Your task to perform on an android device: Open notification settings Image 0: 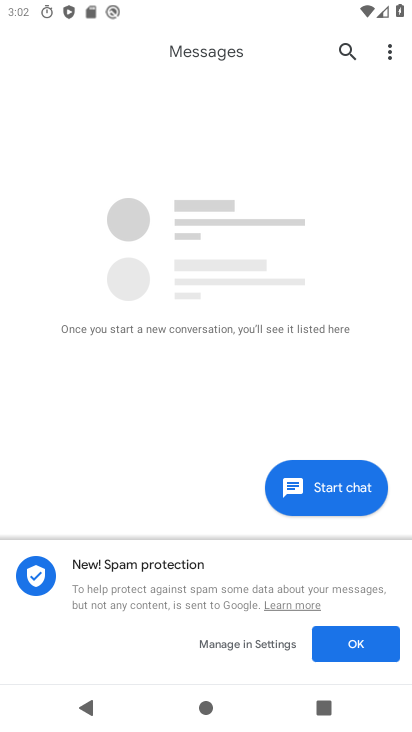
Step 0: press home button
Your task to perform on an android device: Open notification settings Image 1: 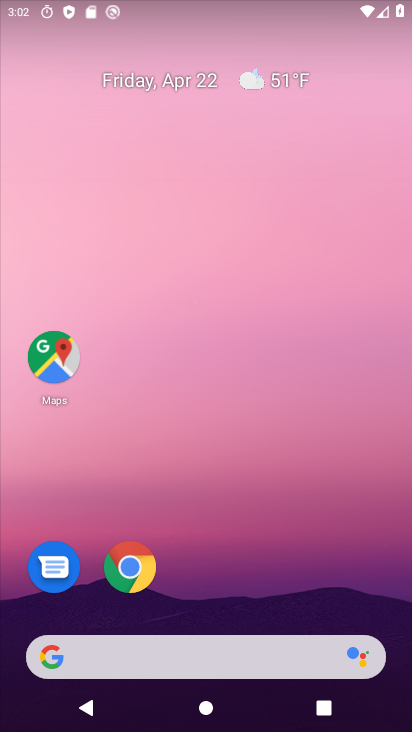
Step 1: drag from (243, 491) to (241, 46)
Your task to perform on an android device: Open notification settings Image 2: 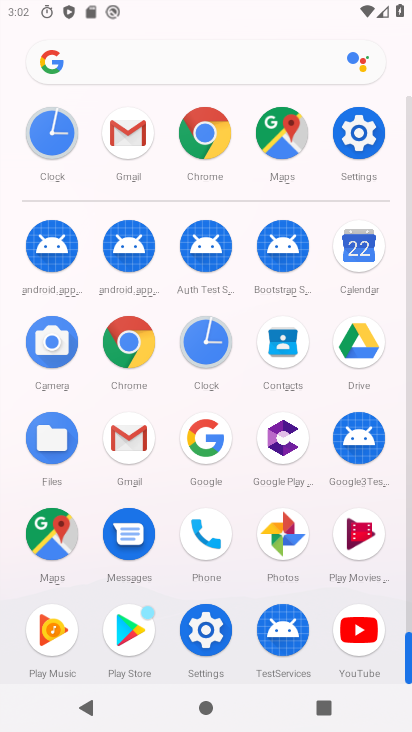
Step 2: click (358, 145)
Your task to perform on an android device: Open notification settings Image 3: 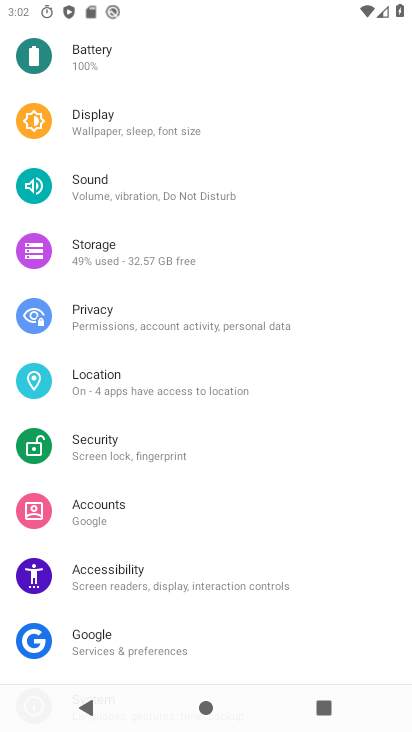
Step 3: drag from (228, 527) to (235, 139)
Your task to perform on an android device: Open notification settings Image 4: 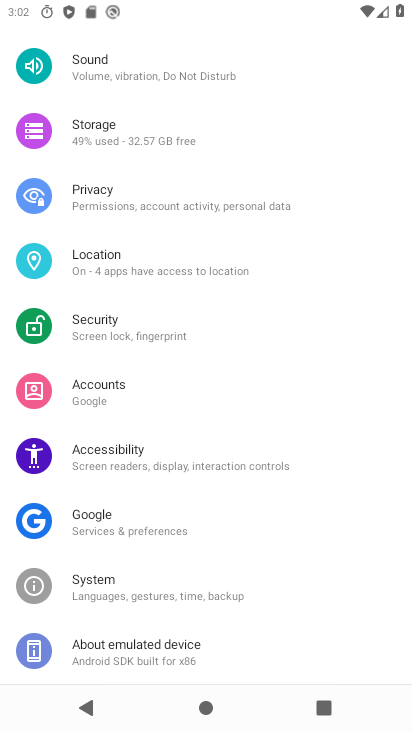
Step 4: drag from (222, 167) to (173, 708)
Your task to perform on an android device: Open notification settings Image 5: 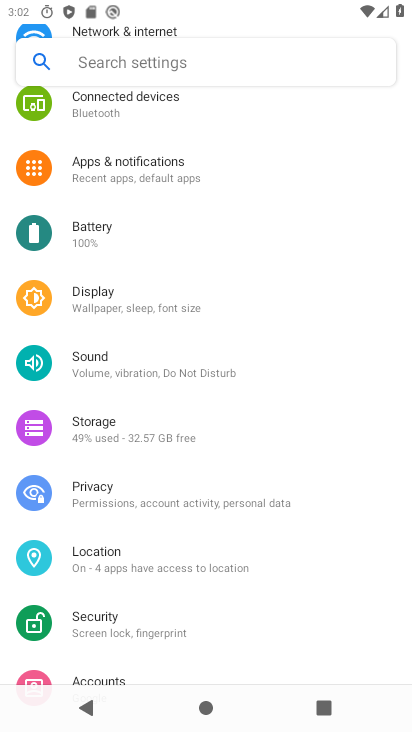
Step 5: click (184, 161)
Your task to perform on an android device: Open notification settings Image 6: 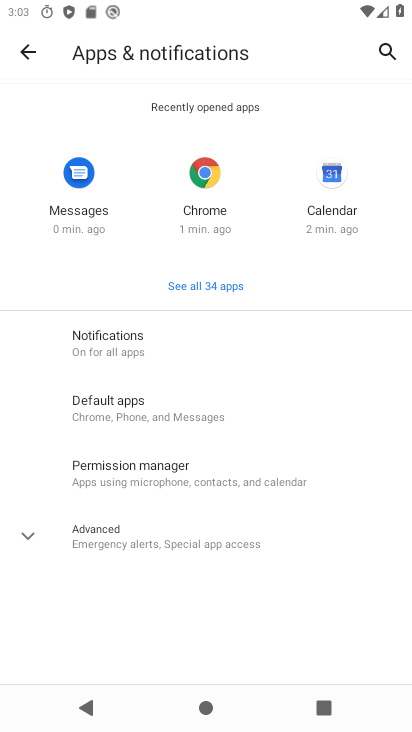
Step 6: task complete